Your task to perform on an android device: open app "Viber Messenger" Image 0: 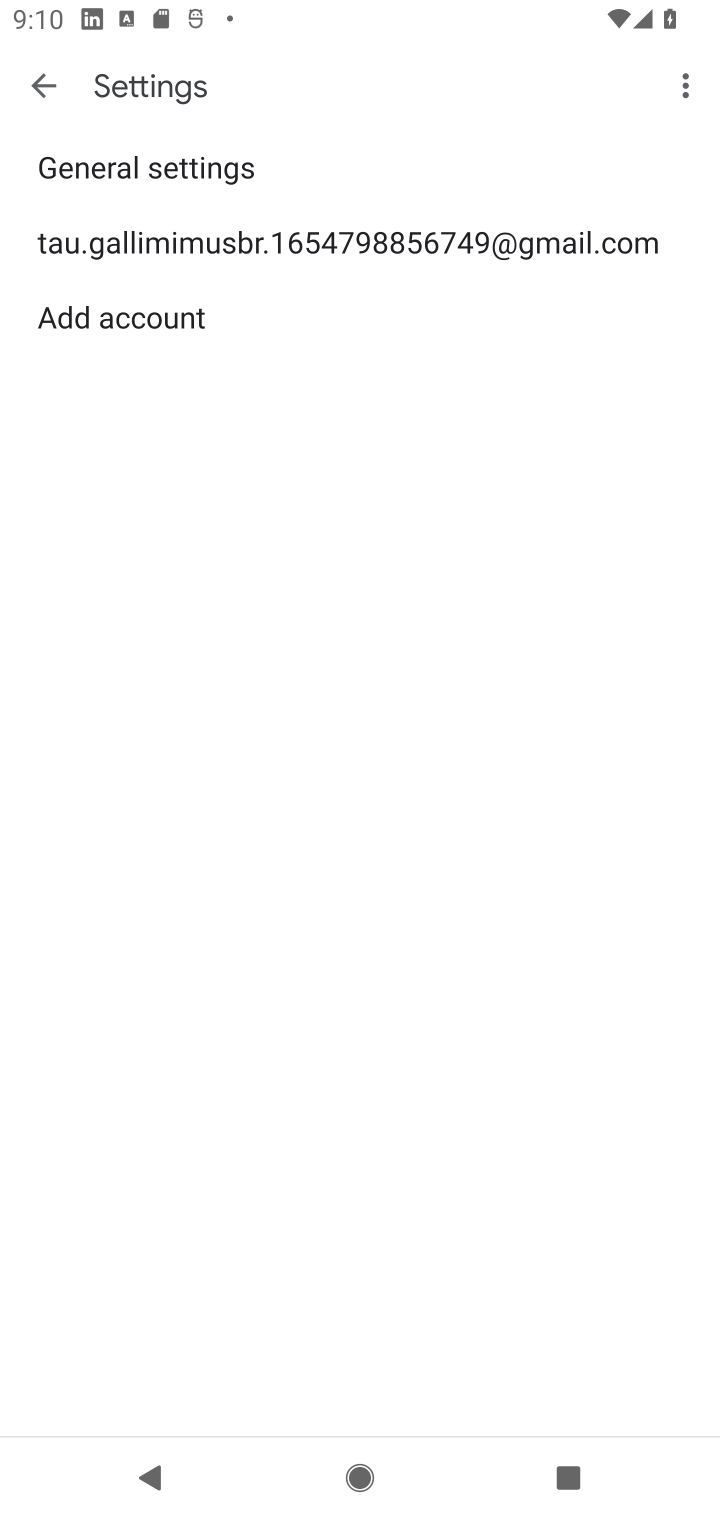
Step 0: press home button
Your task to perform on an android device: open app "Viber Messenger" Image 1: 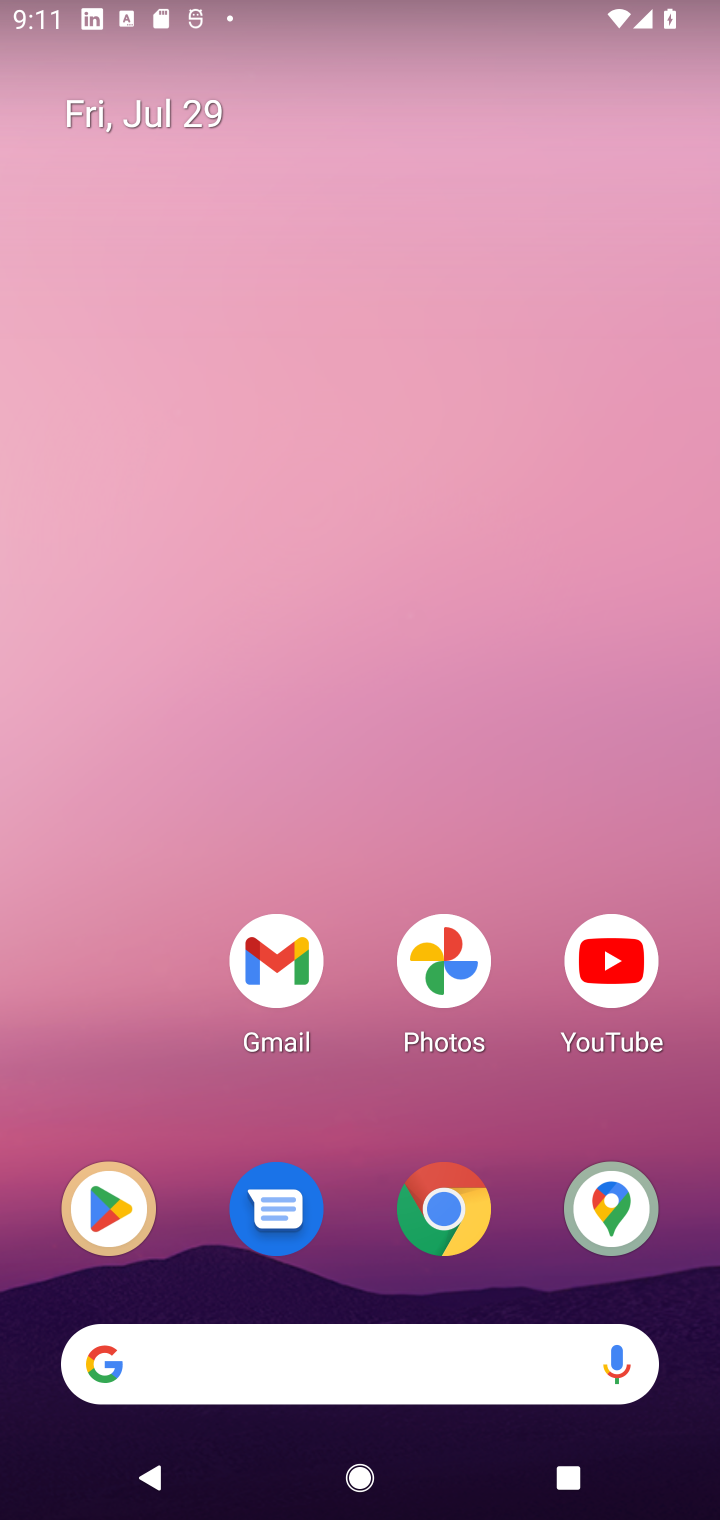
Step 1: click (112, 1214)
Your task to perform on an android device: open app "Viber Messenger" Image 2: 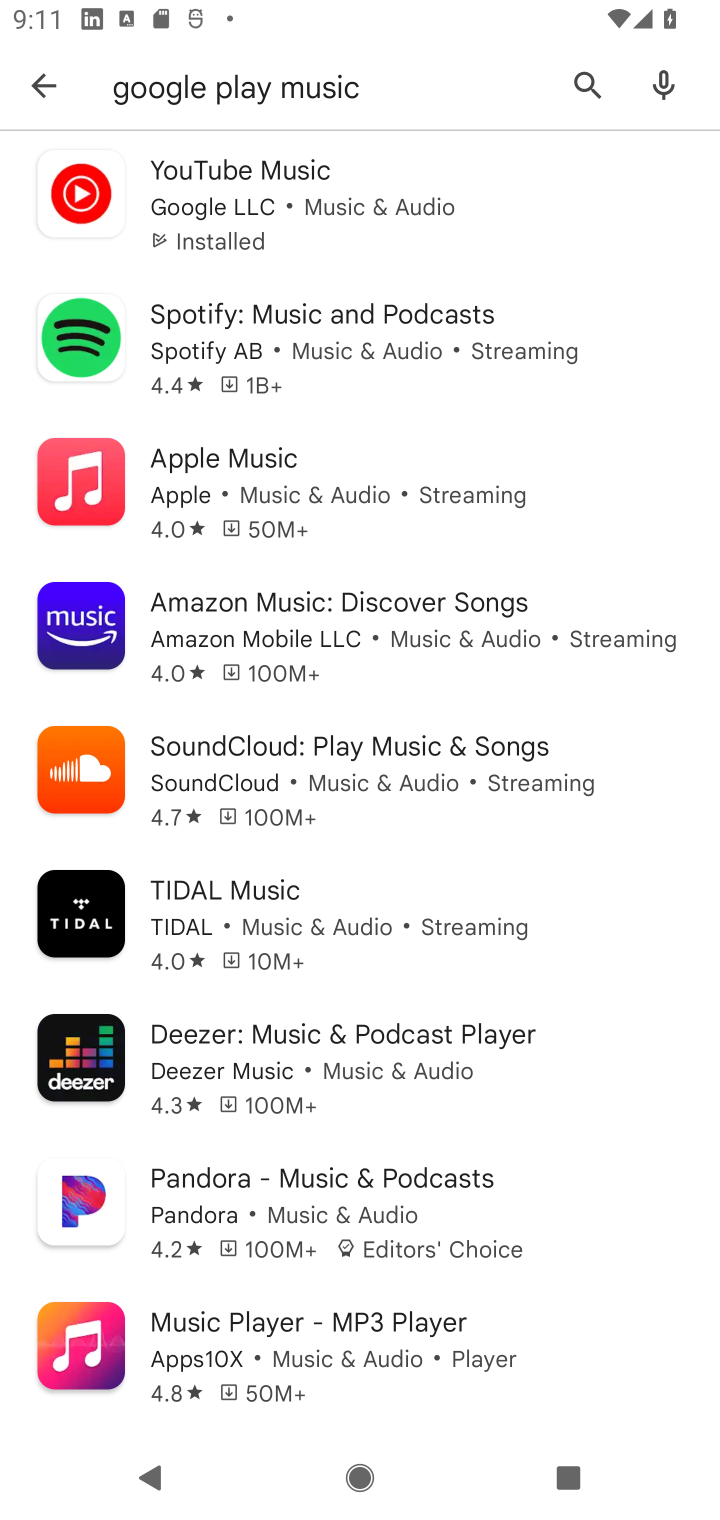
Step 2: click (581, 79)
Your task to perform on an android device: open app "Viber Messenger" Image 3: 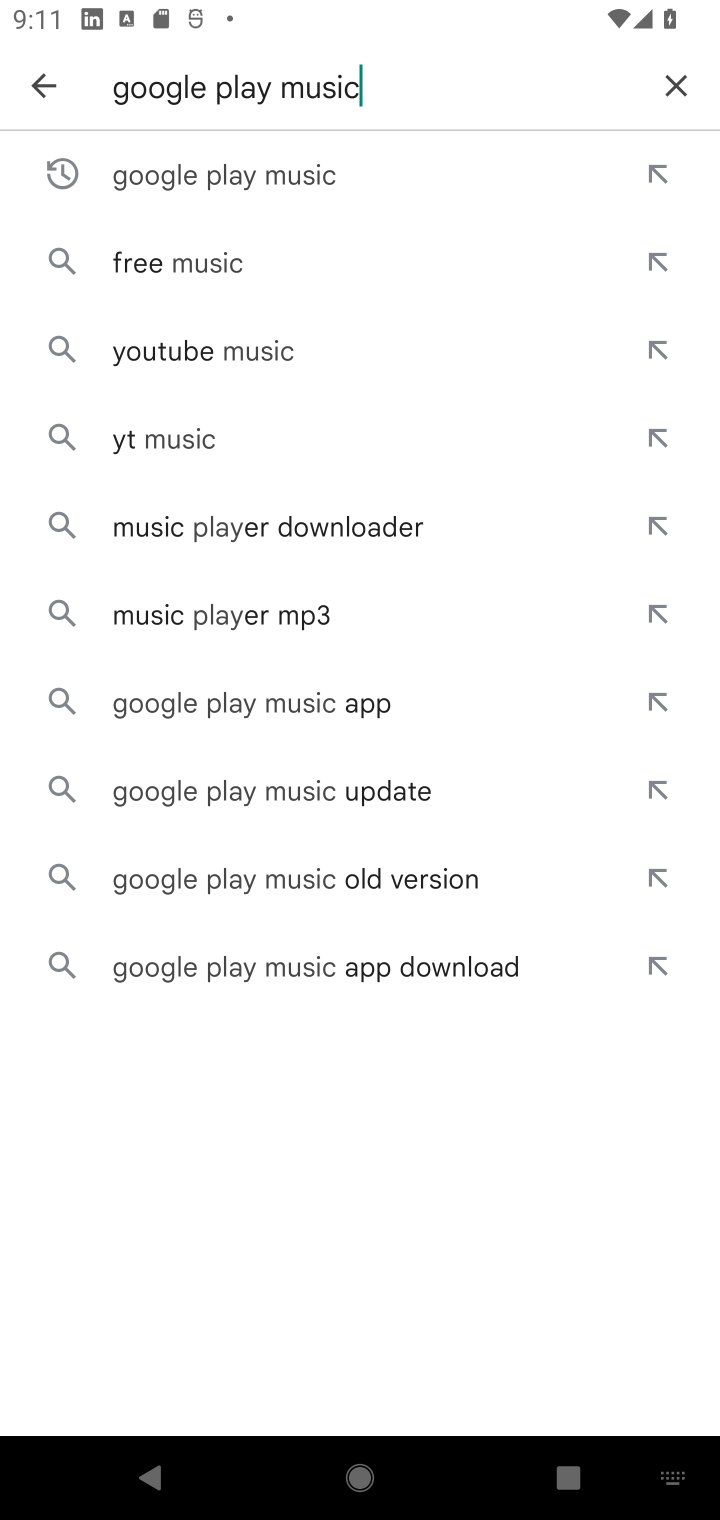
Step 3: click (670, 90)
Your task to perform on an android device: open app "Viber Messenger" Image 4: 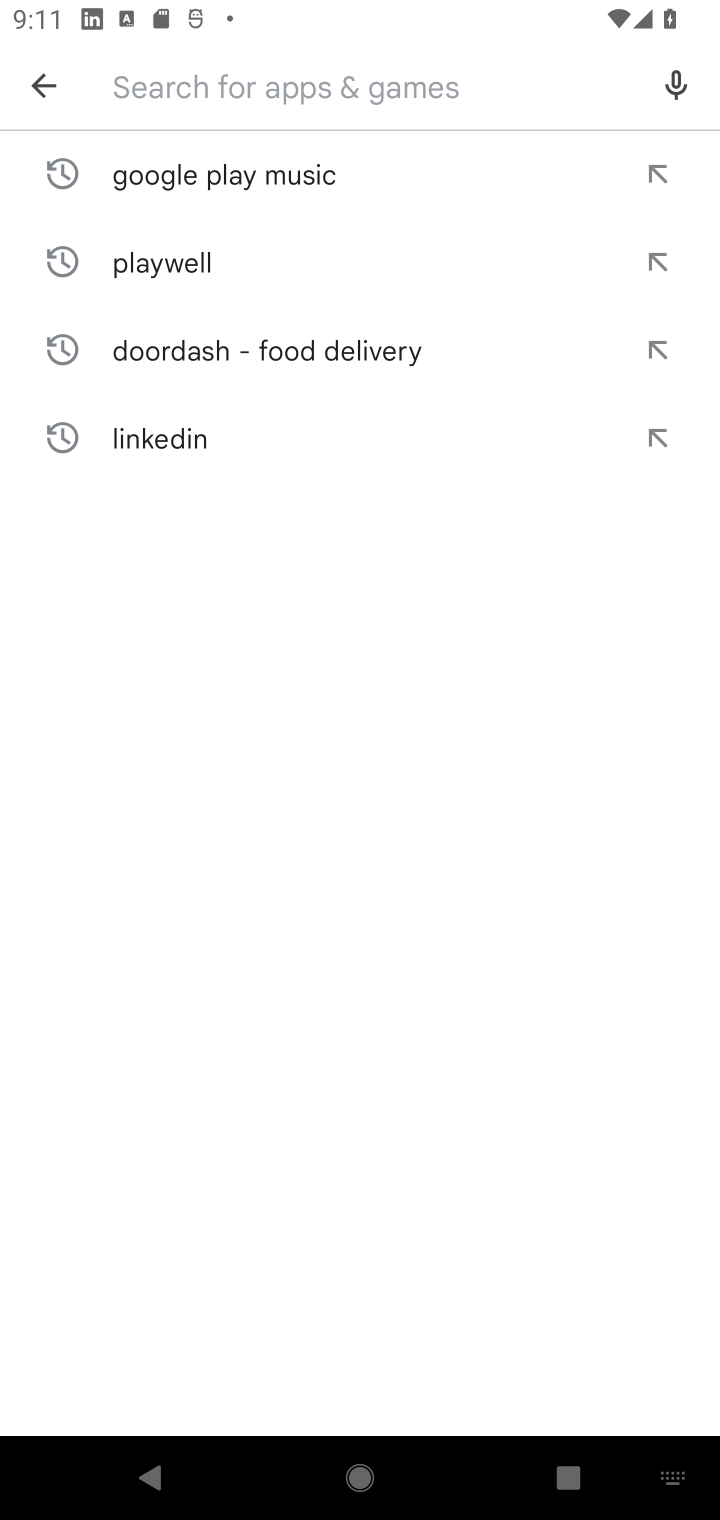
Step 4: type "Viber Messenger"
Your task to perform on an android device: open app "Viber Messenger" Image 5: 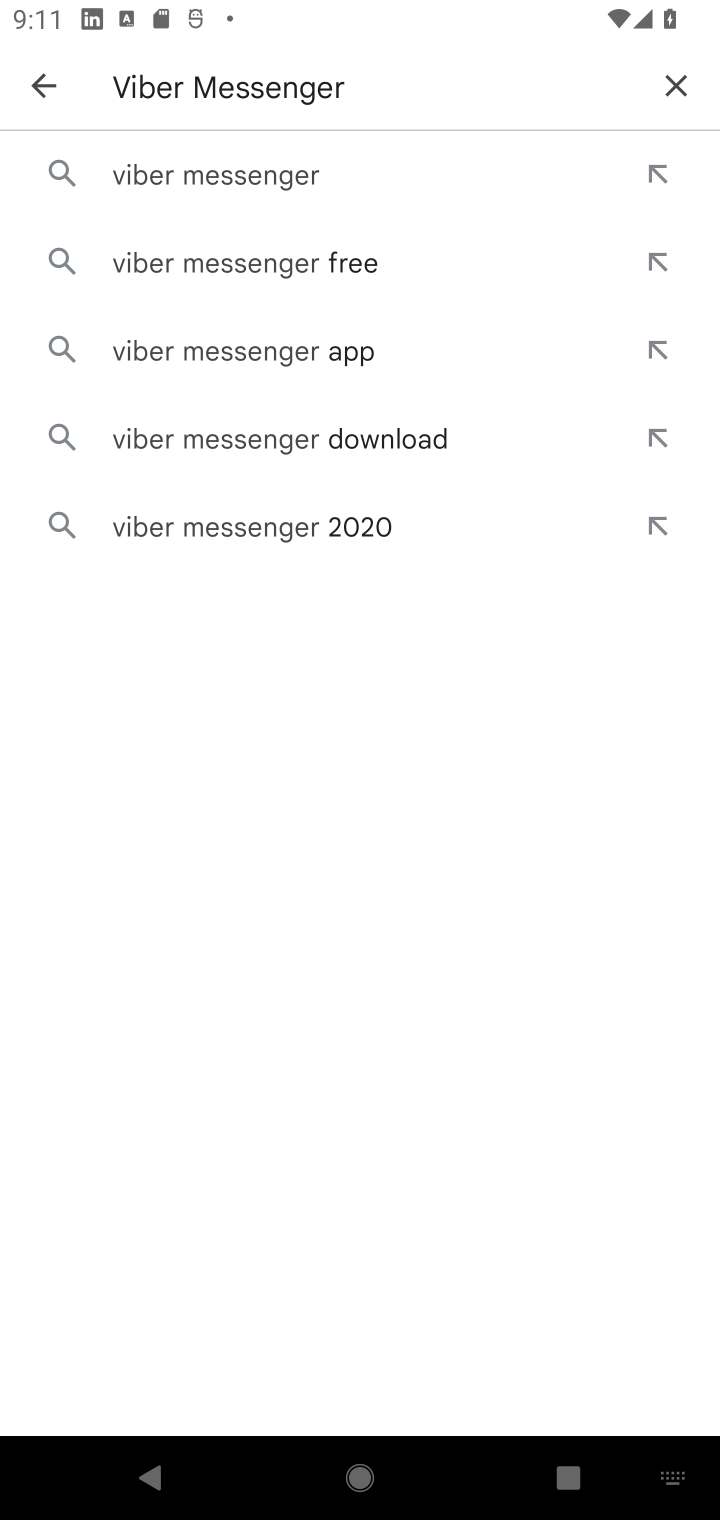
Step 5: click (169, 178)
Your task to perform on an android device: open app "Viber Messenger" Image 6: 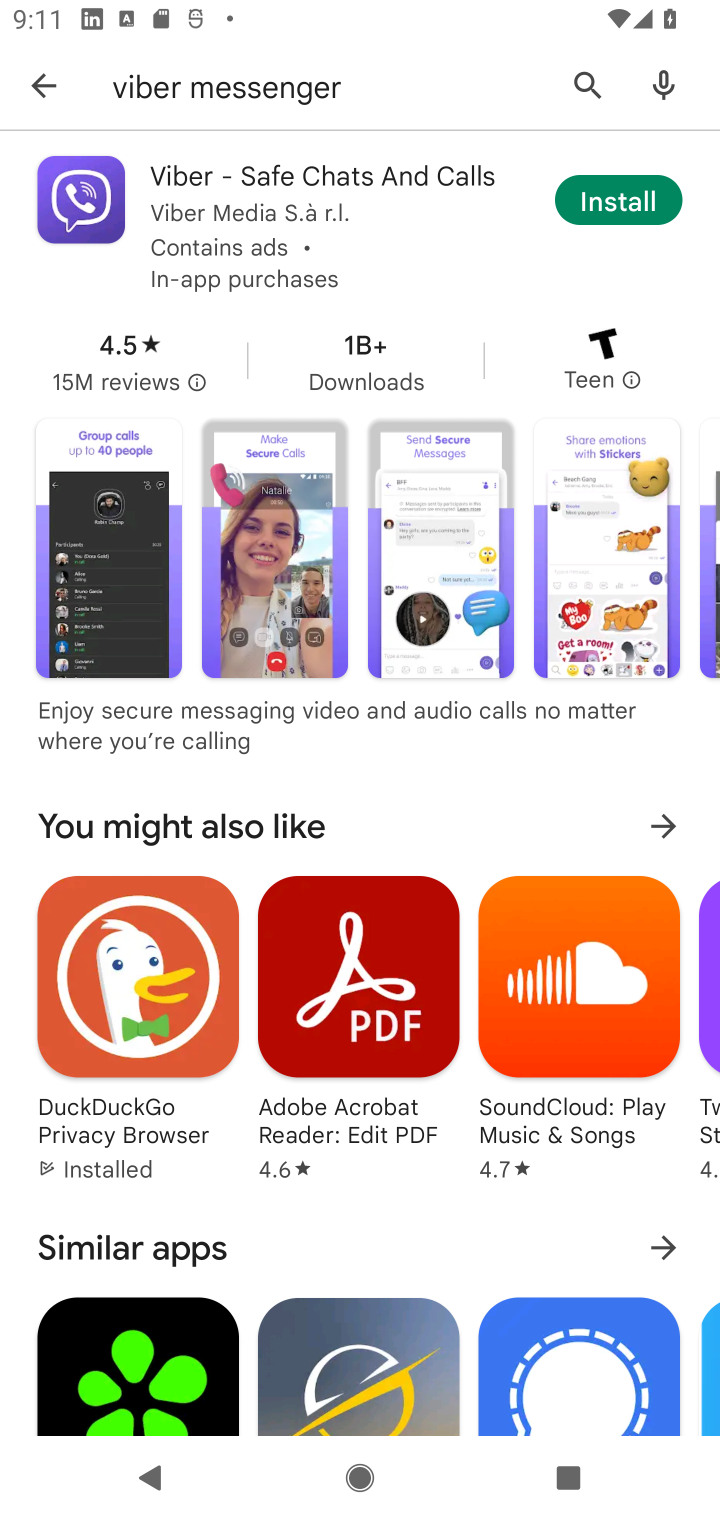
Step 6: task complete